Your task to perform on an android device: turn off airplane mode Image 0: 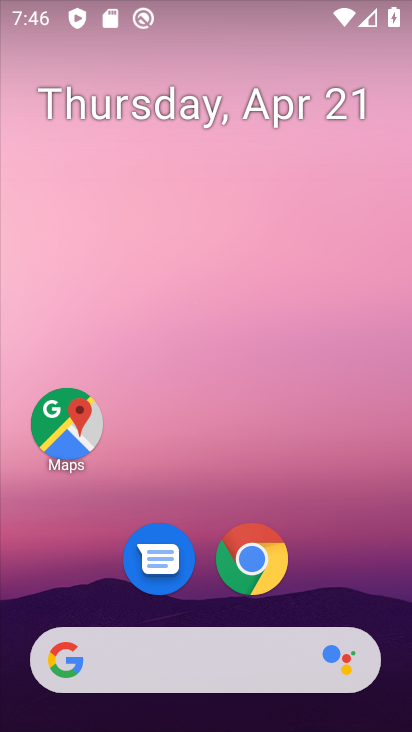
Step 0: drag from (195, 614) to (244, 230)
Your task to perform on an android device: turn off airplane mode Image 1: 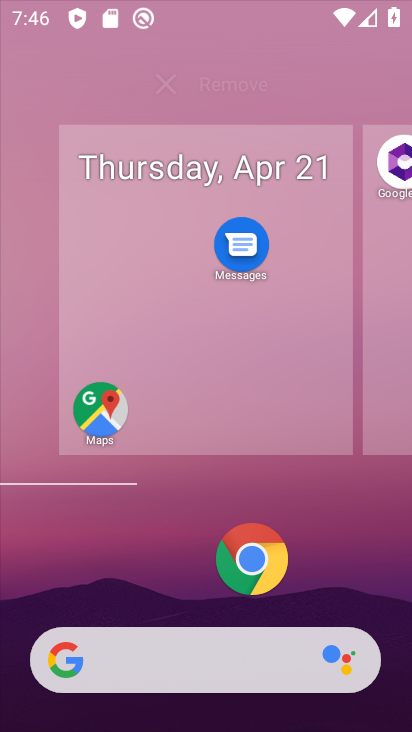
Step 1: drag from (247, 232) to (247, 193)
Your task to perform on an android device: turn off airplane mode Image 2: 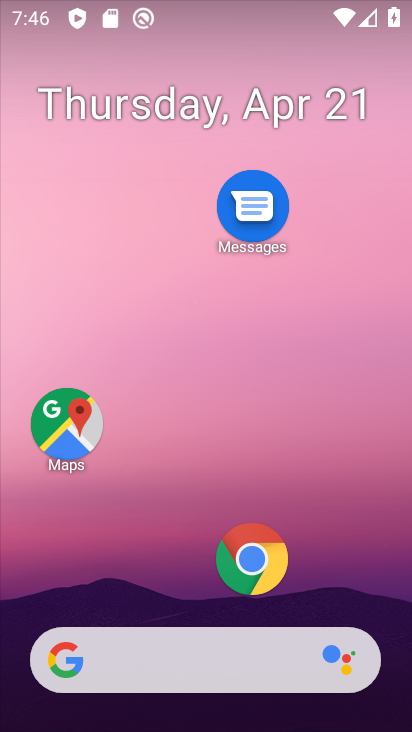
Step 2: drag from (259, 493) to (259, 154)
Your task to perform on an android device: turn off airplane mode Image 3: 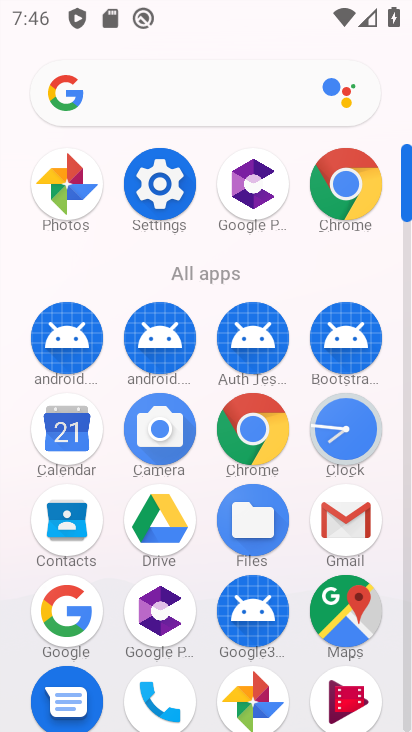
Step 3: drag from (279, 155) to (218, 266)
Your task to perform on an android device: turn off airplane mode Image 4: 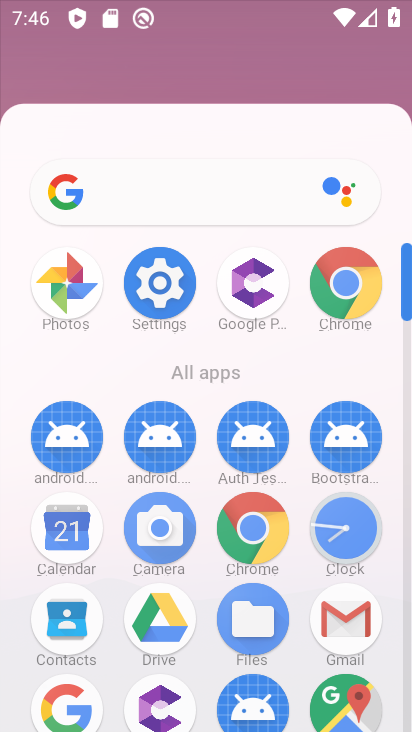
Step 4: drag from (251, 535) to (177, 195)
Your task to perform on an android device: turn off airplane mode Image 5: 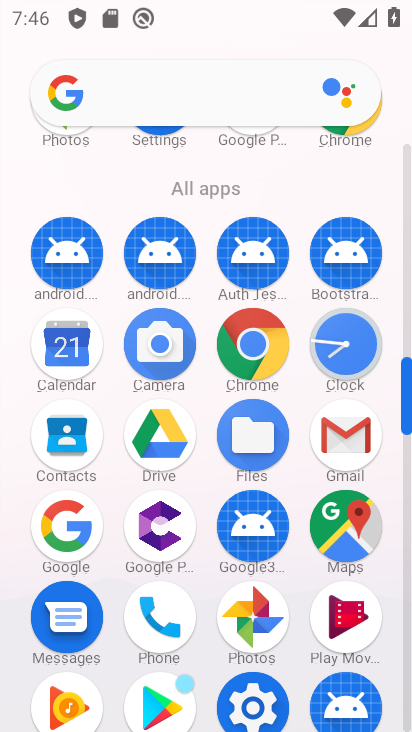
Step 5: drag from (224, 296) to (211, 194)
Your task to perform on an android device: turn off airplane mode Image 6: 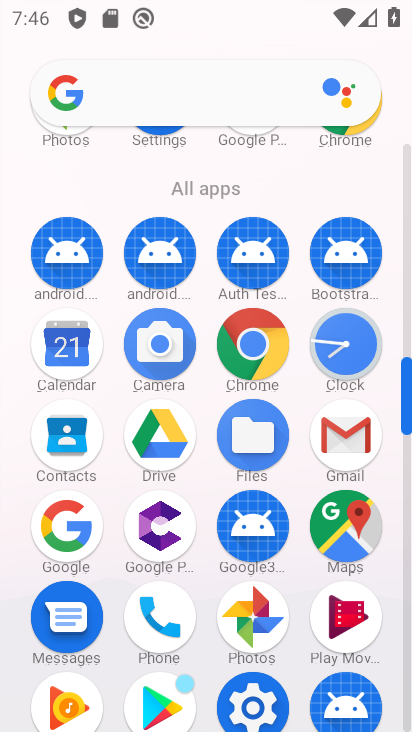
Step 6: click (254, 692)
Your task to perform on an android device: turn off airplane mode Image 7: 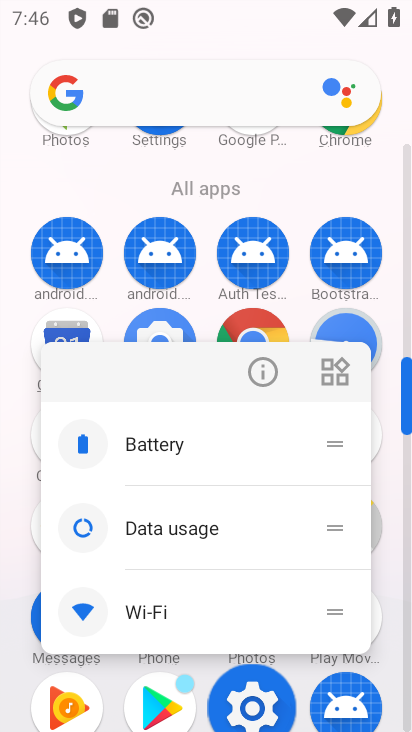
Step 7: click (255, 707)
Your task to perform on an android device: turn off airplane mode Image 8: 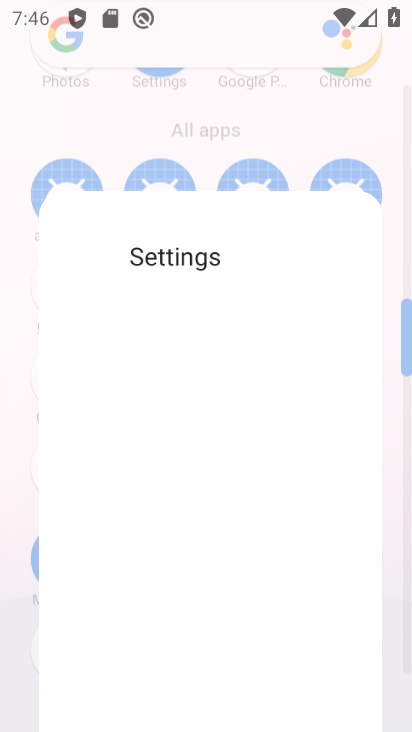
Step 8: click (255, 707)
Your task to perform on an android device: turn off airplane mode Image 9: 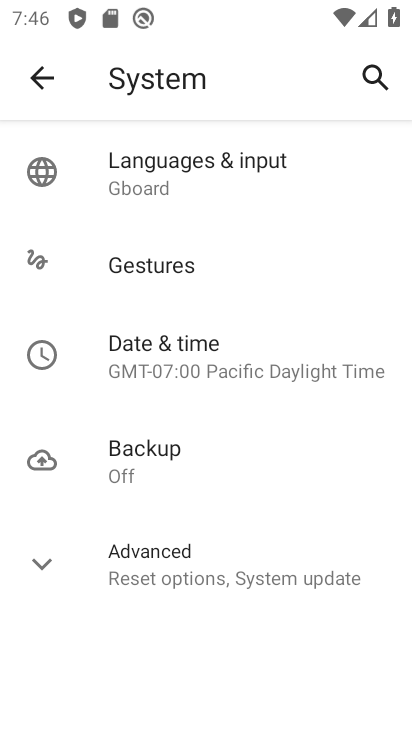
Step 9: click (44, 69)
Your task to perform on an android device: turn off airplane mode Image 10: 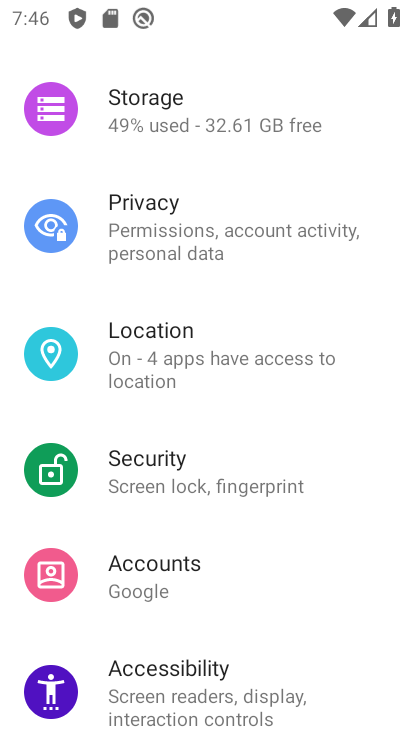
Step 10: drag from (145, 184) to (231, 588)
Your task to perform on an android device: turn off airplane mode Image 11: 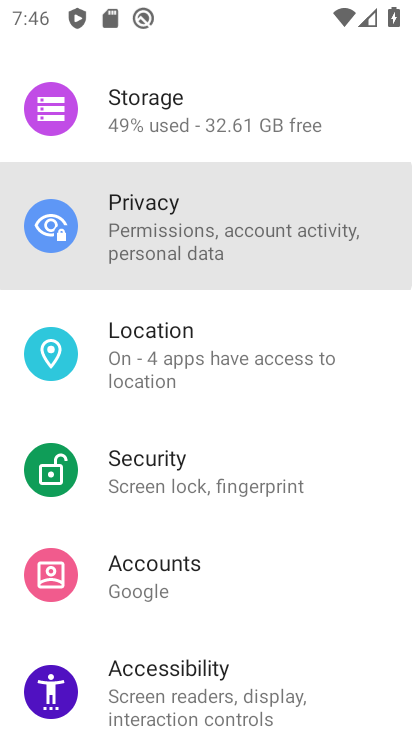
Step 11: drag from (192, 428) to (211, 592)
Your task to perform on an android device: turn off airplane mode Image 12: 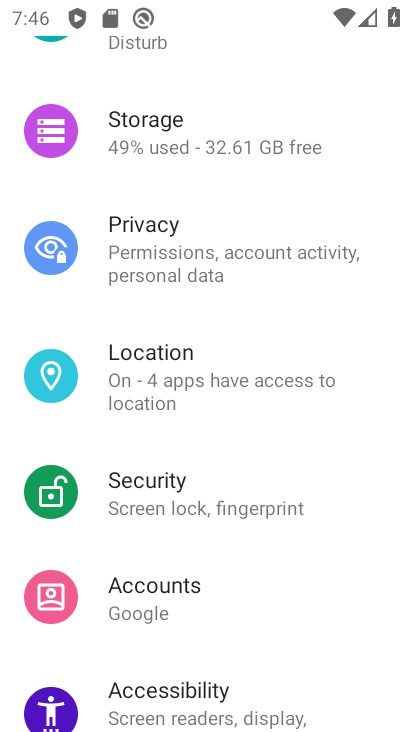
Step 12: drag from (189, 416) to (202, 496)
Your task to perform on an android device: turn off airplane mode Image 13: 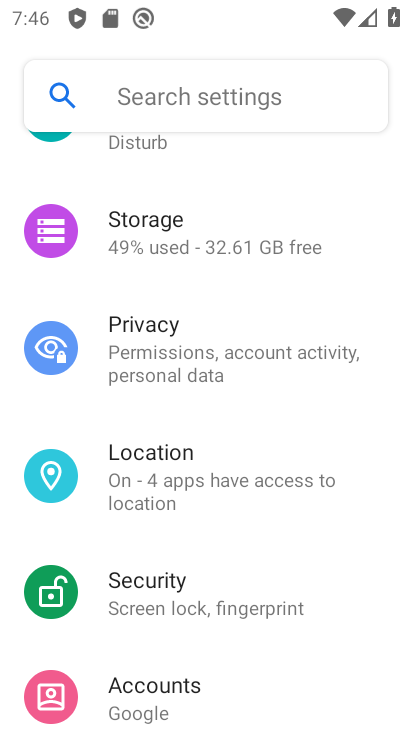
Step 13: drag from (187, 220) to (192, 603)
Your task to perform on an android device: turn off airplane mode Image 14: 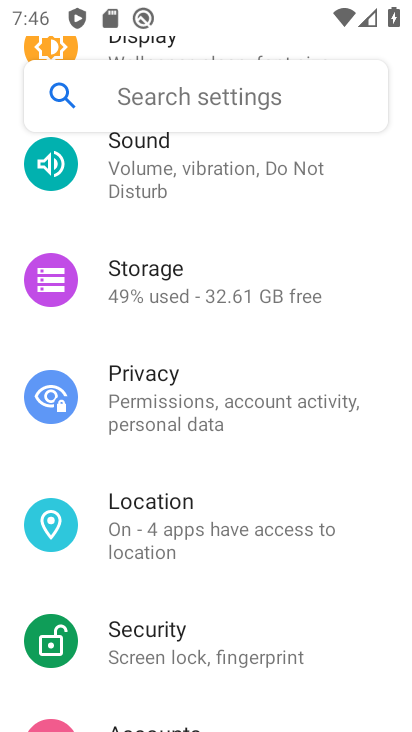
Step 14: drag from (146, 169) to (212, 549)
Your task to perform on an android device: turn off airplane mode Image 15: 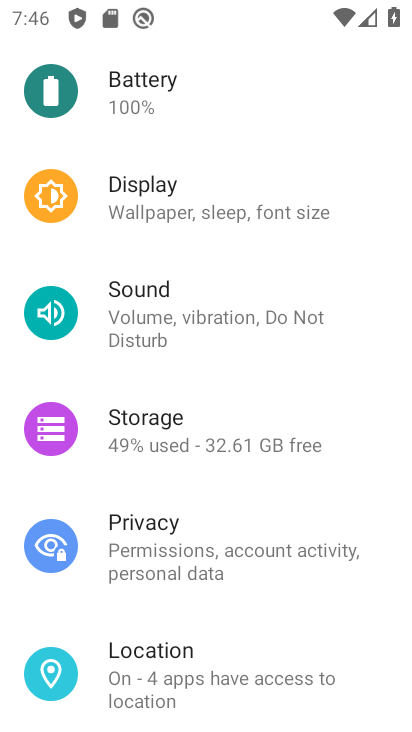
Step 15: drag from (246, 443) to (250, 591)
Your task to perform on an android device: turn off airplane mode Image 16: 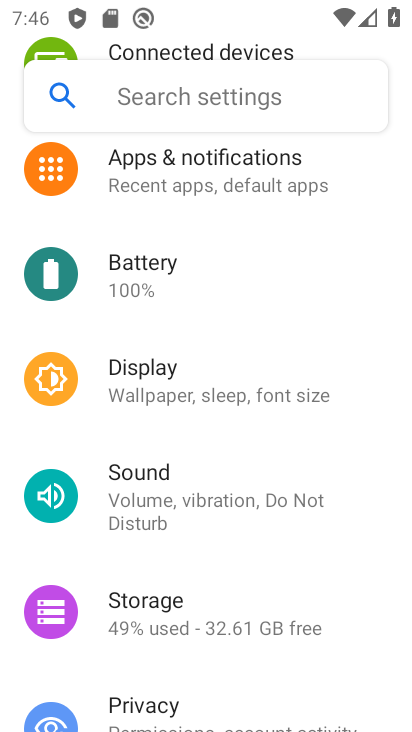
Step 16: drag from (158, 249) to (262, 657)
Your task to perform on an android device: turn off airplane mode Image 17: 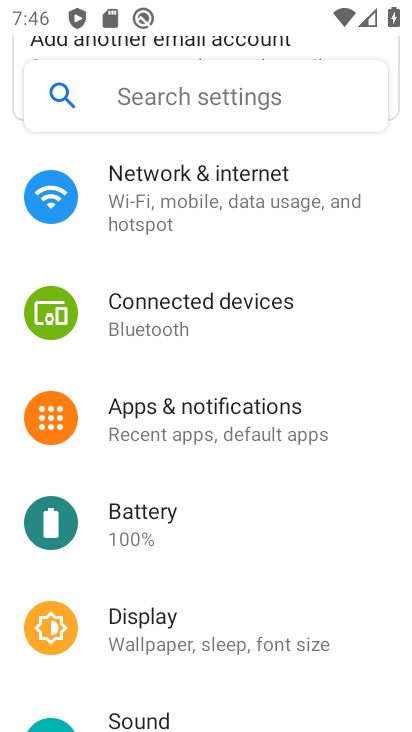
Step 17: drag from (201, 257) to (227, 463)
Your task to perform on an android device: turn off airplane mode Image 18: 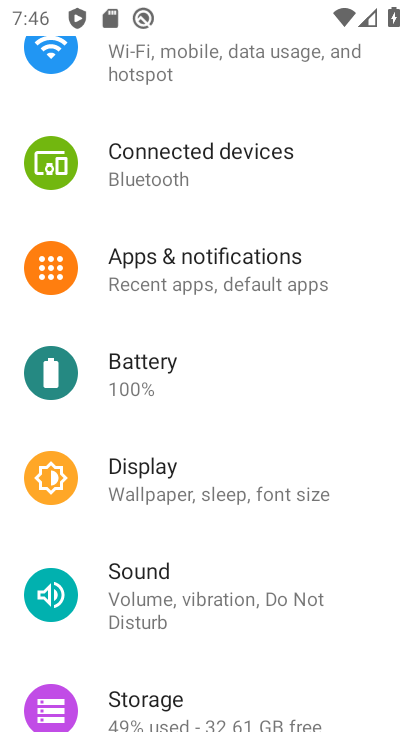
Step 18: click (263, 465)
Your task to perform on an android device: turn off airplane mode Image 19: 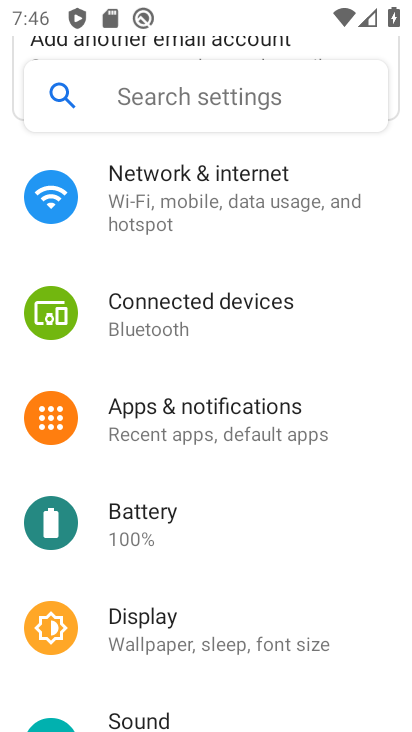
Step 19: click (207, 184)
Your task to perform on an android device: turn off airplane mode Image 20: 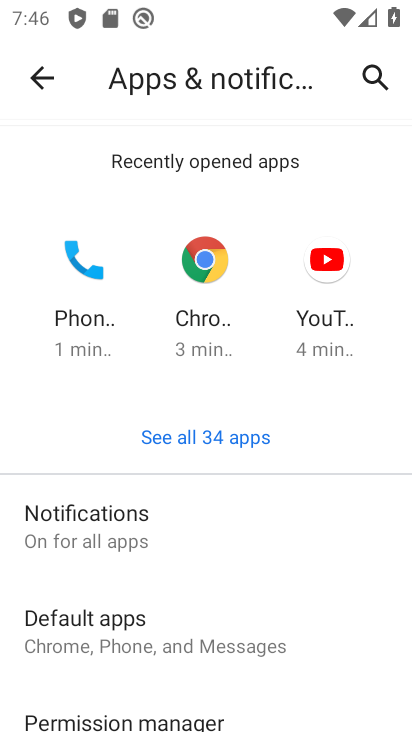
Step 20: click (40, 68)
Your task to perform on an android device: turn off airplane mode Image 21: 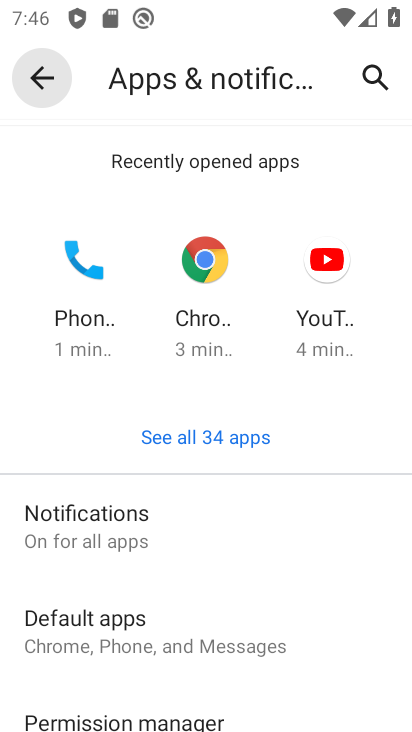
Step 21: click (40, 68)
Your task to perform on an android device: turn off airplane mode Image 22: 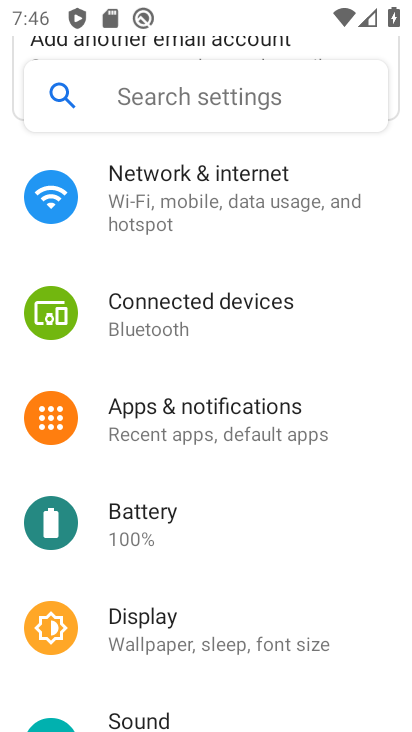
Step 22: click (224, 190)
Your task to perform on an android device: turn off airplane mode Image 23: 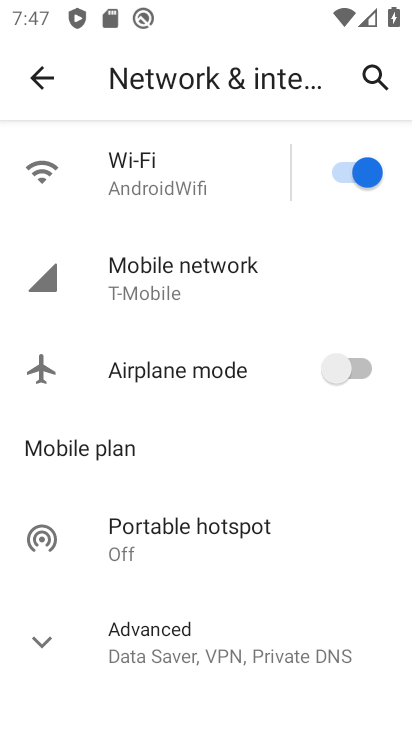
Step 23: click (334, 375)
Your task to perform on an android device: turn off airplane mode Image 24: 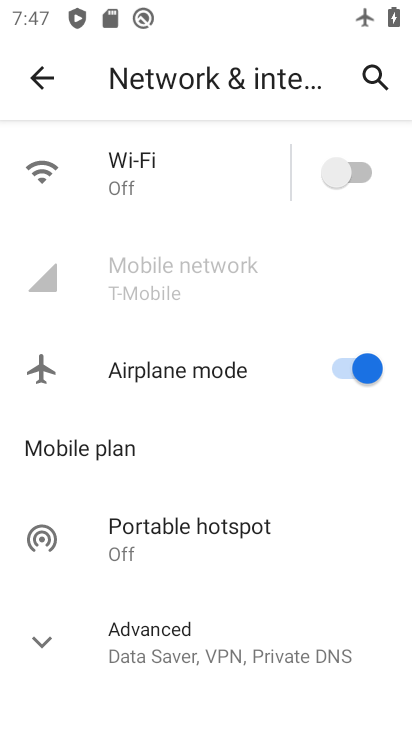
Step 24: click (352, 367)
Your task to perform on an android device: turn off airplane mode Image 25: 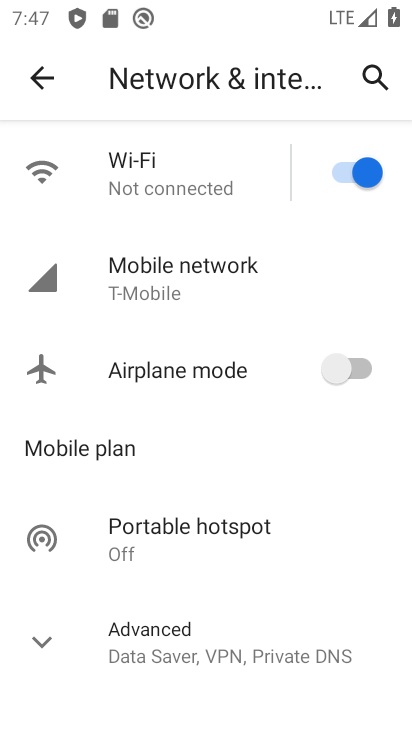
Step 25: task complete